Your task to perform on an android device: turn on showing notifications on the lock screen Image 0: 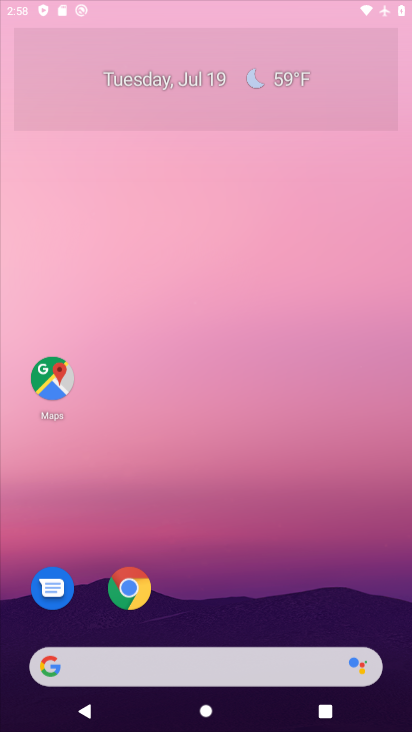
Step 0: press home button
Your task to perform on an android device: turn on showing notifications on the lock screen Image 1: 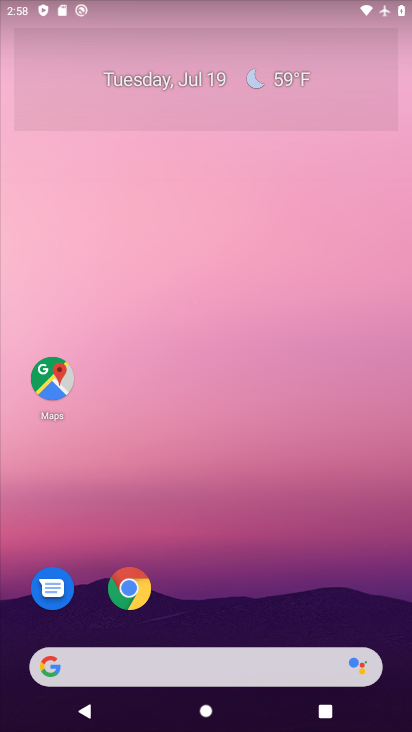
Step 1: drag from (198, 608) to (236, 132)
Your task to perform on an android device: turn on showing notifications on the lock screen Image 2: 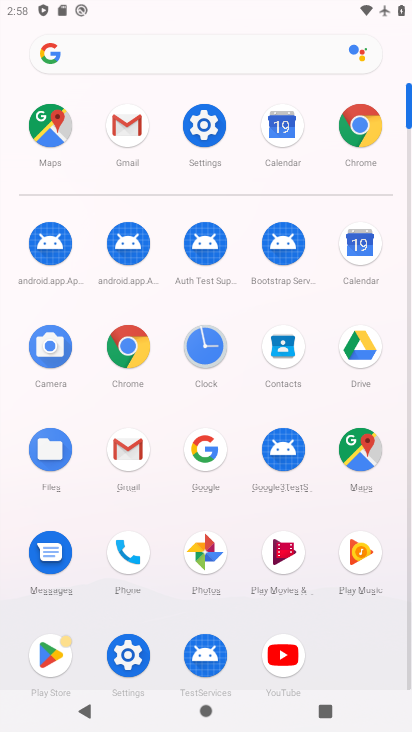
Step 2: click (192, 123)
Your task to perform on an android device: turn on showing notifications on the lock screen Image 3: 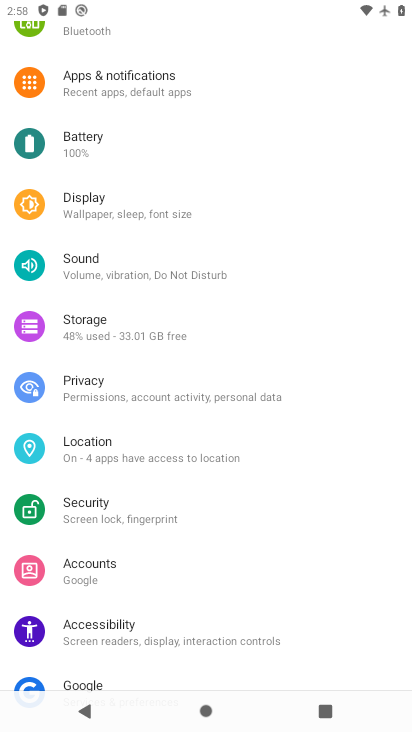
Step 3: click (98, 97)
Your task to perform on an android device: turn on showing notifications on the lock screen Image 4: 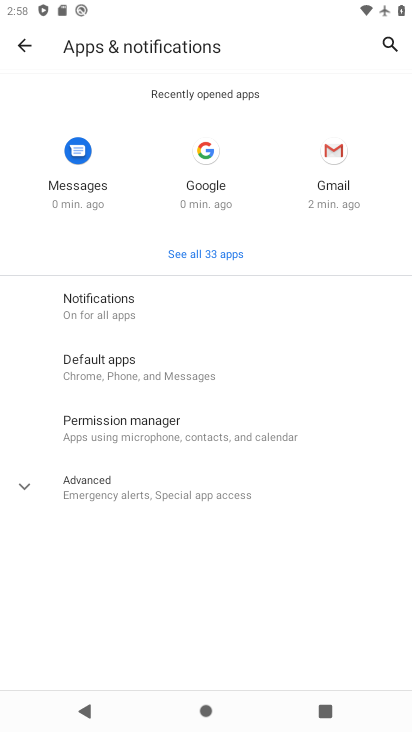
Step 4: click (84, 308)
Your task to perform on an android device: turn on showing notifications on the lock screen Image 5: 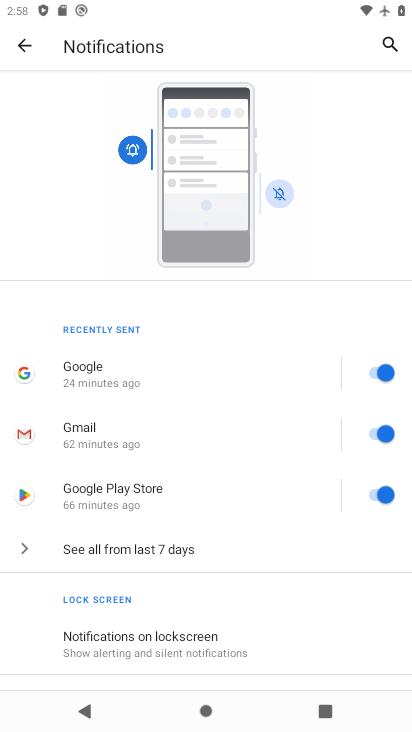
Step 5: drag from (179, 614) to (200, 279)
Your task to perform on an android device: turn on showing notifications on the lock screen Image 6: 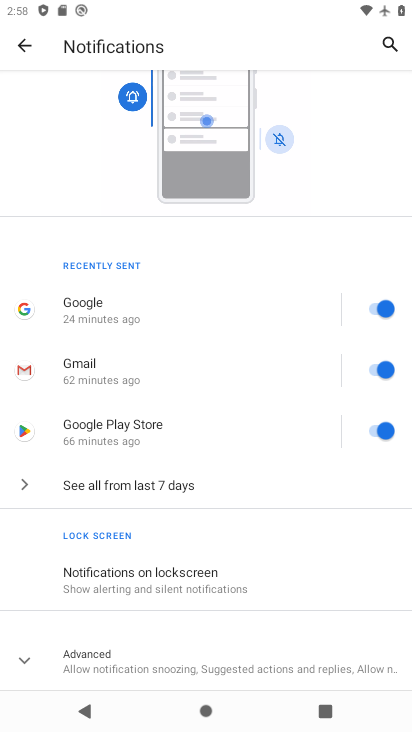
Step 6: click (152, 587)
Your task to perform on an android device: turn on showing notifications on the lock screen Image 7: 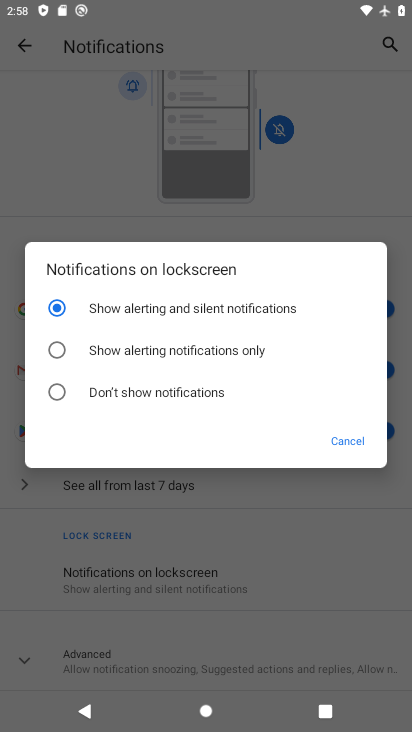
Step 7: task complete